Your task to perform on an android device: open a new tab in the chrome app Image 0: 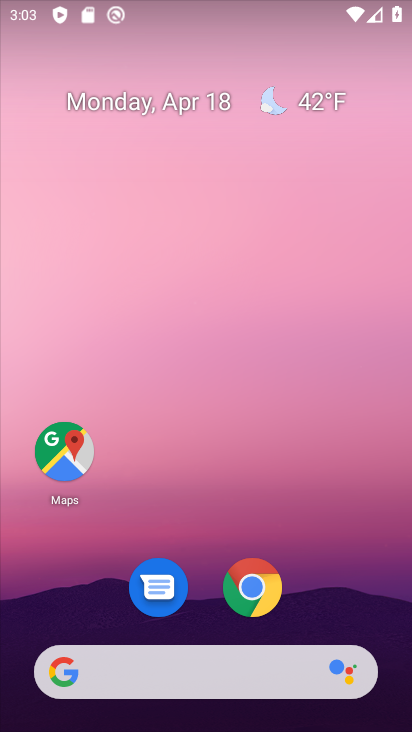
Step 0: click (248, 594)
Your task to perform on an android device: open a new tab in the chrome app Image 1: 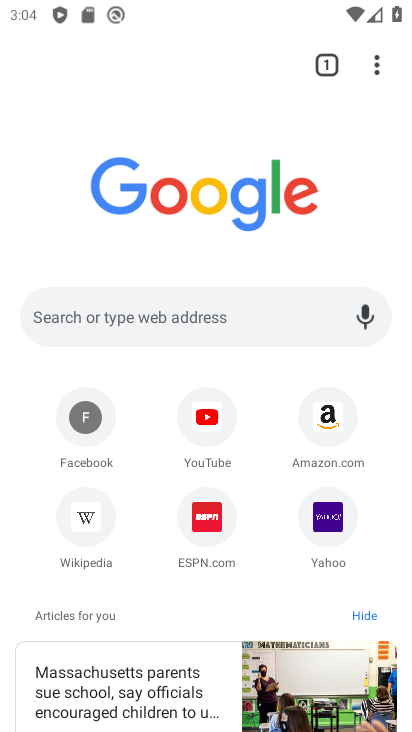
Step 1: click (379, 67)
Your task to perform on an android device: open a new tab in the chrome app Image 2: 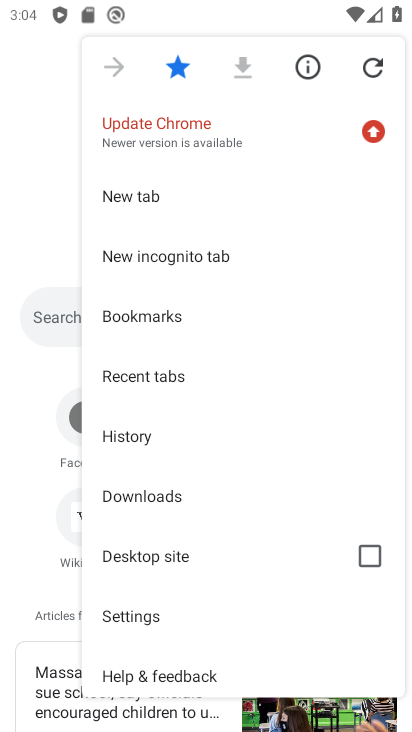
Step 2: click (159, 198)
Your task to perform on an android device: open a new tab in the chrome app Image 3: 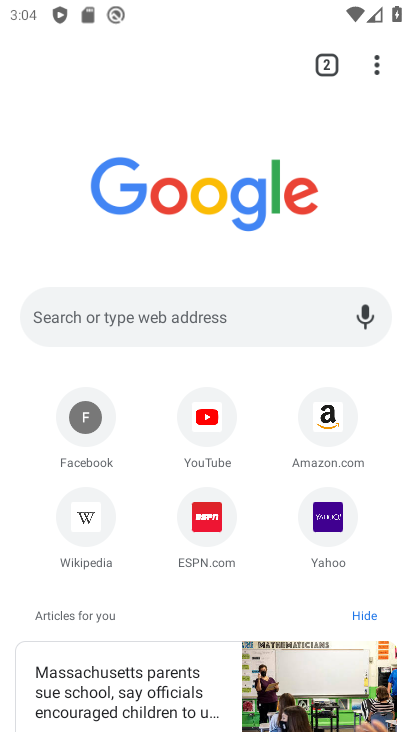
Step 3: task complete